Your task to perform on an android device: Open display settings Image 0: 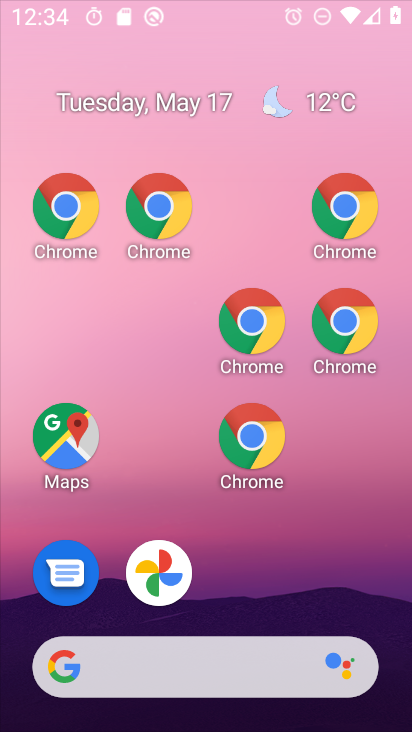
Step 0: click (287, 148)
Your task to perform on an android device: Open display settings Image 1: 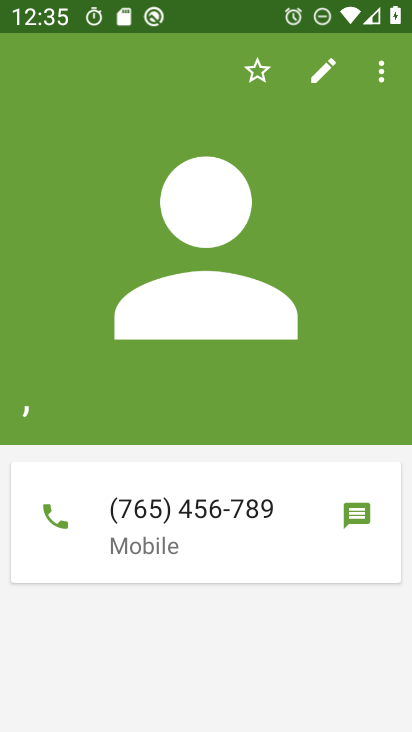
Step 1: press home button
Your task to perform on an android device: Open display settings Image 2: 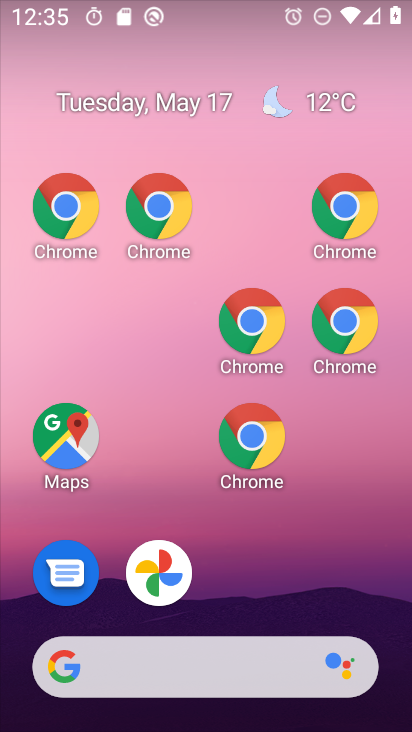
Step 2: drag from (353, 542) to (291, 88)
Your task to perform on an android device: Open display settings Image 3: 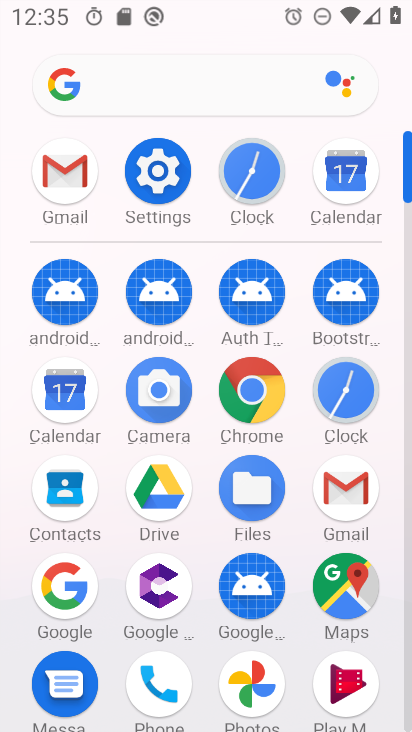
Step 3: click (146, 170)
Your task to perform on an android device: Open display settings Image 4: 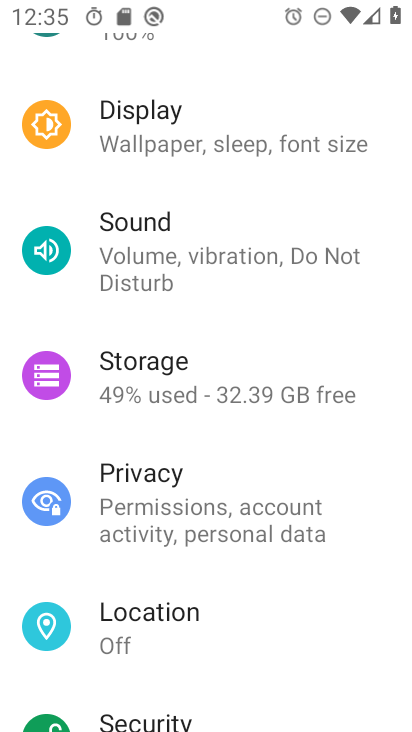
Step 4: drag from (171, 611) to (212, 115)
Your task to perform on an android device: Open display settings Image 5: 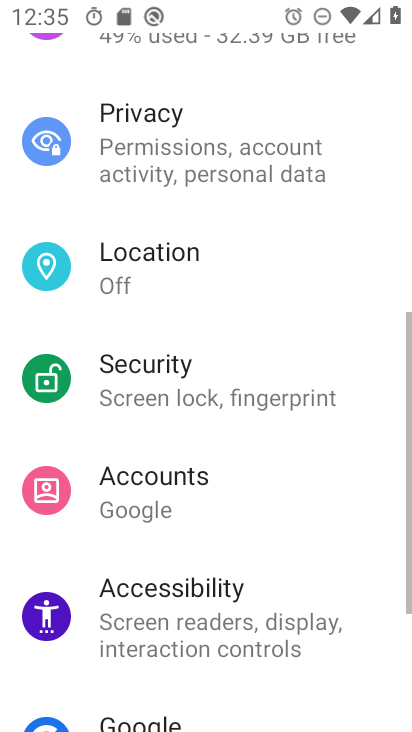
Step 5: click (179, 129)
Your task to perform on an android device: Open display settings Image 6: 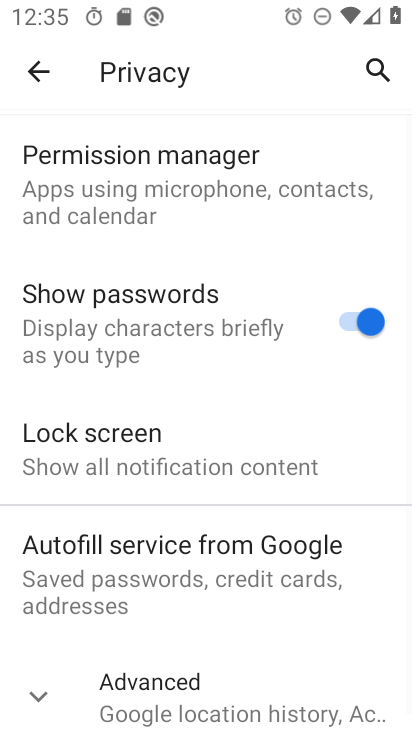
Step 6: click (50, 79)
Your task to perform on an android device: Open display settings Image 7: 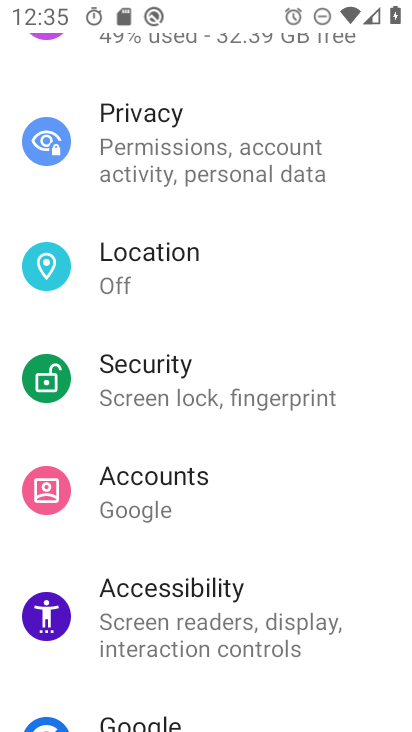
Step 7: drag from (200, 242) to (292, 585)
Your task to perform on an android device: Open display settings Image 8: 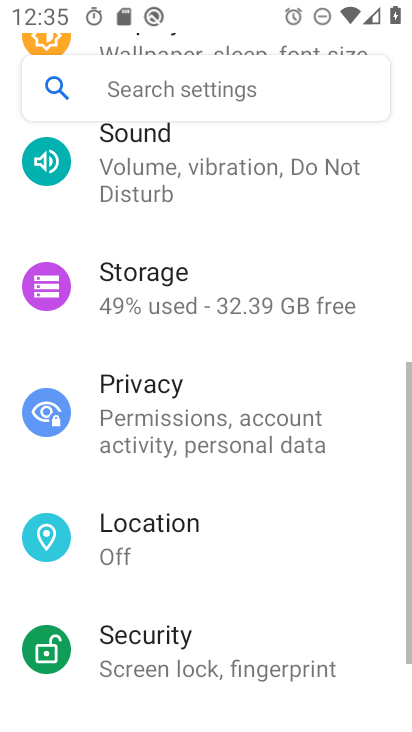
Step 8: drag from (224, 295) to (270, 638)
Your task to perform on an android device: Open display settings Image 9: 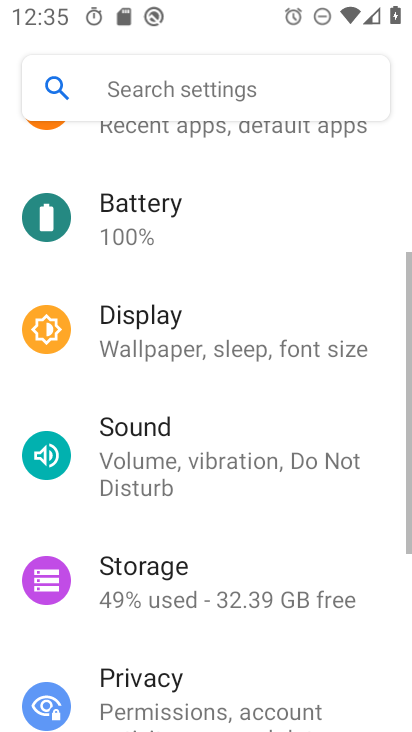
Step 9: drag from (185, 260) to (291, 697)
Your task to perform on an android device: Open display settings Image 10: 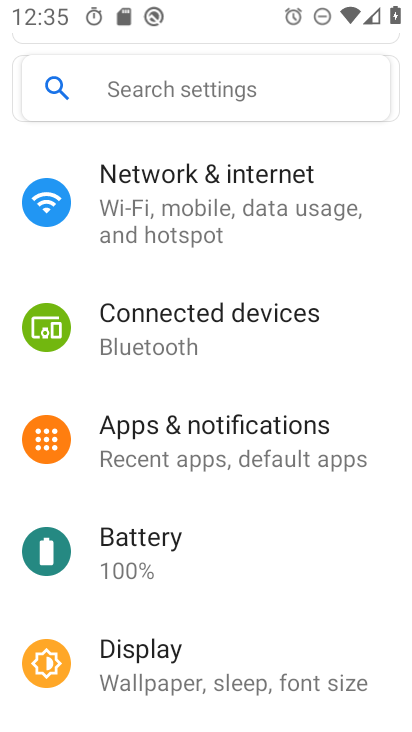
Step 10: click (143, 662)
Your task to perform on an android device: Open display settings Image 11: 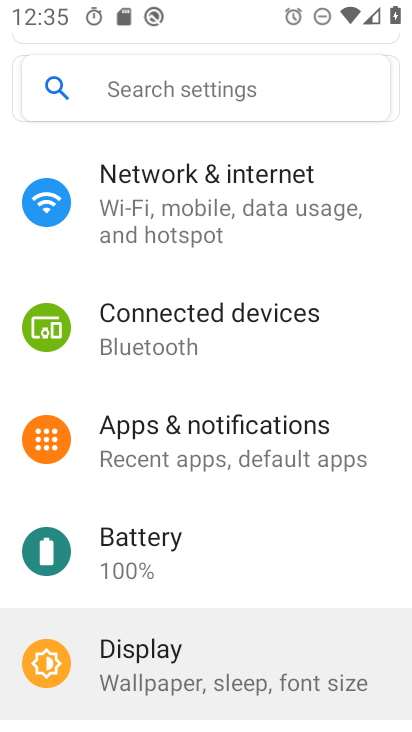
Step 11: click (144, 662)
Your task to perform on an android device: Open display settings Image 12: 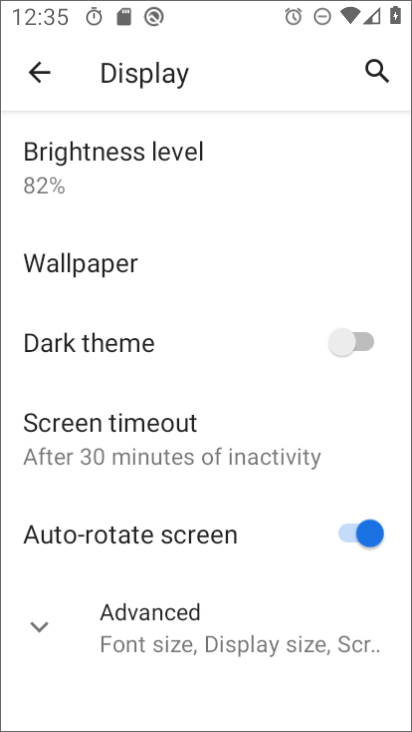
Step 12: click (144, 662)
Your task to perform on an android device: Open display settings Image 13: 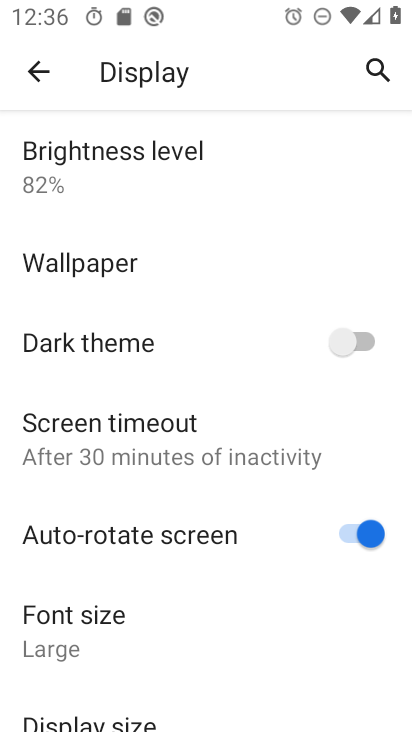
Step 13: task complete